Your task to perform on an android device: Go to CNN.com Image 0: 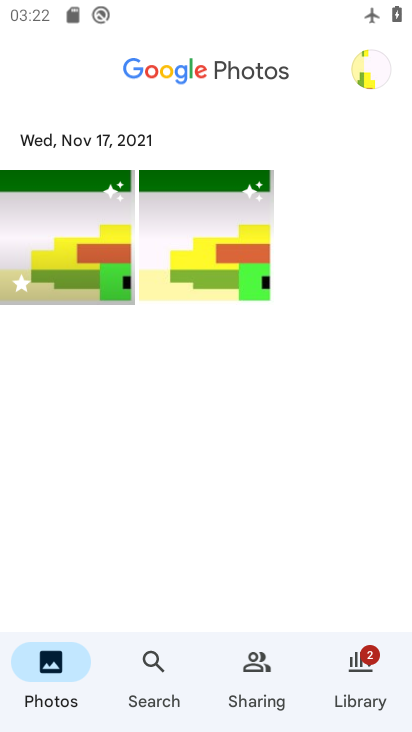
Step 0: press home button
Your task to perform on an android device: Go to CNN.com Image 1: 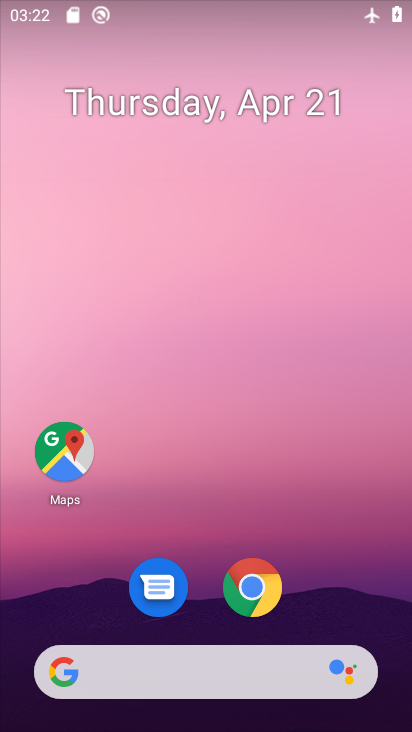
Step 1: drag from (333, 588) to (337, 188)
Your task to perform on an android device: Go to CNN.com Image 2: 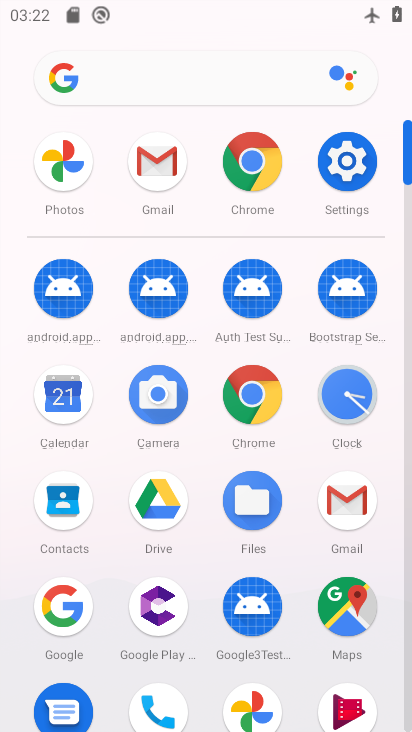
Step 2: click (262, 400)
Your task to perform on an android device: Go to CNN.com Image 3: 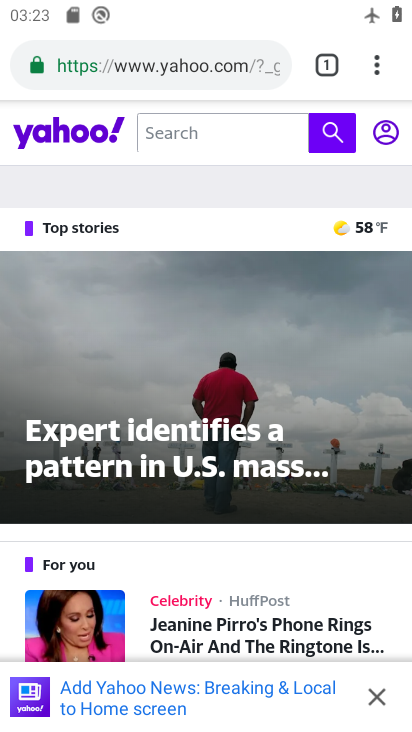
Step 3: click (224, 72)
Your task to perform on an android device: Go to CNN.com Image 4: 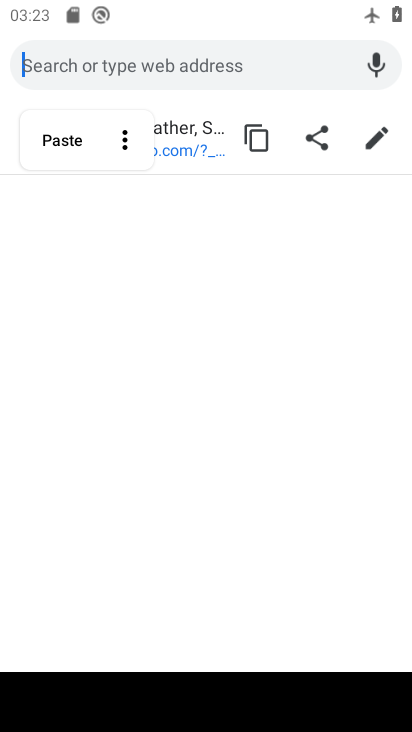
Step 4: type "cnn.com"
Your task to perform on an android device: Go to CNN.com Image 5: 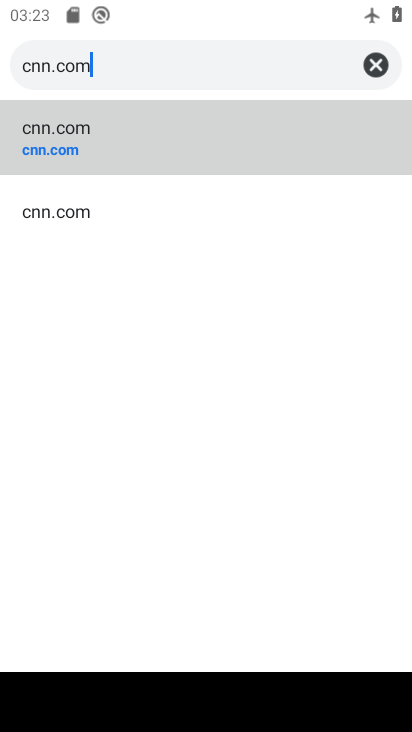
Step 5: click (76, 153)
Your task to perform on an android device: Go to CNN.com Image 6: 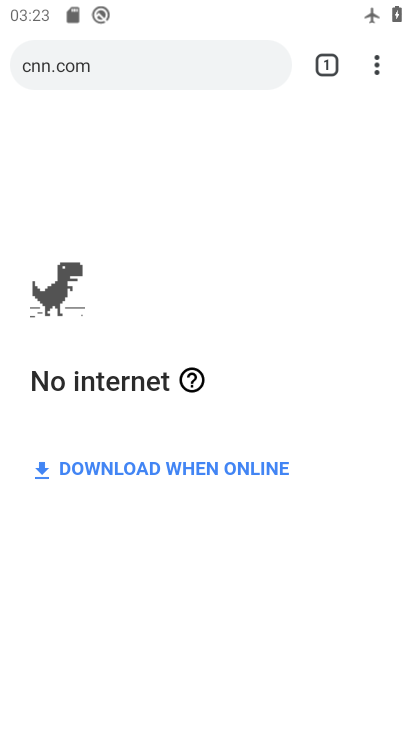
Step 6: task complete